Your task to perform on an android device: set the stopwatch Image 0: 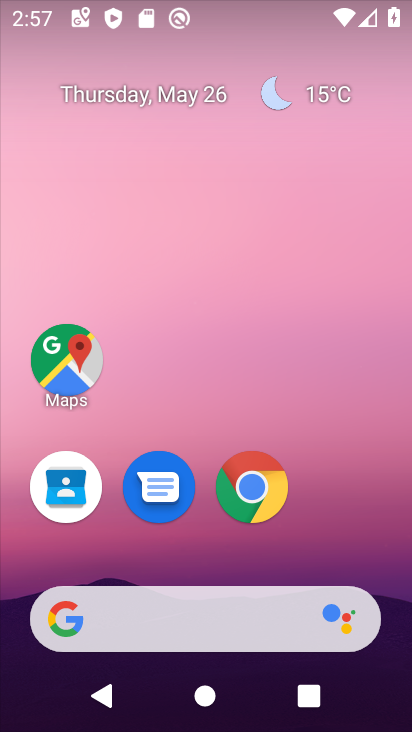
Step 0: drag from (242, 558) to (238, 265)
Your task to perform on an android device: set the stopwatch Image 1: 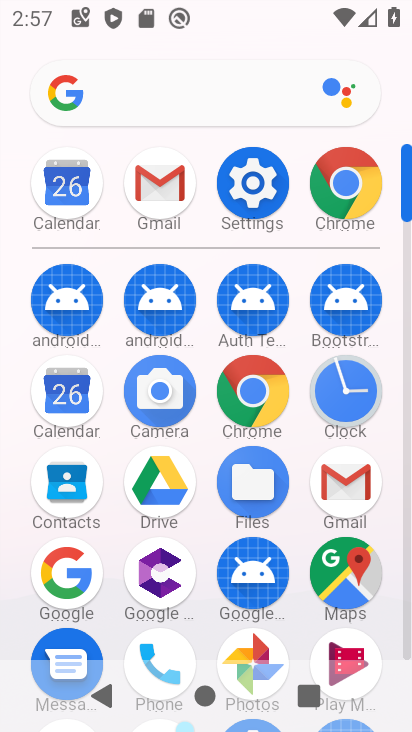
Step 1: click (326, 394)
Your task to perform on an android device: set the stopwatch Image 2: 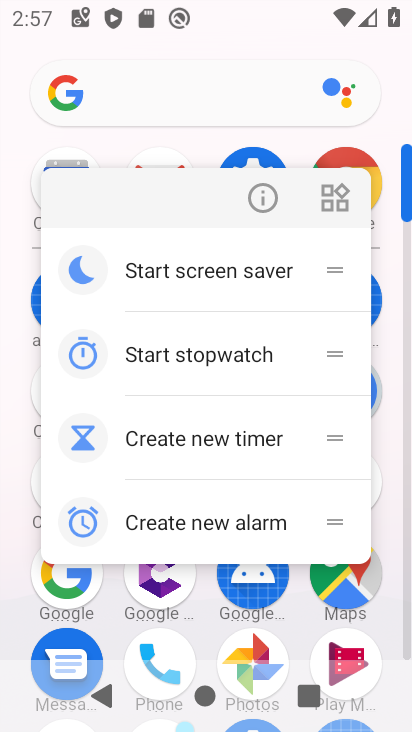
Step 2: click (389, 380)
Your task to perform on an android device: set the stopwatch Image 3: 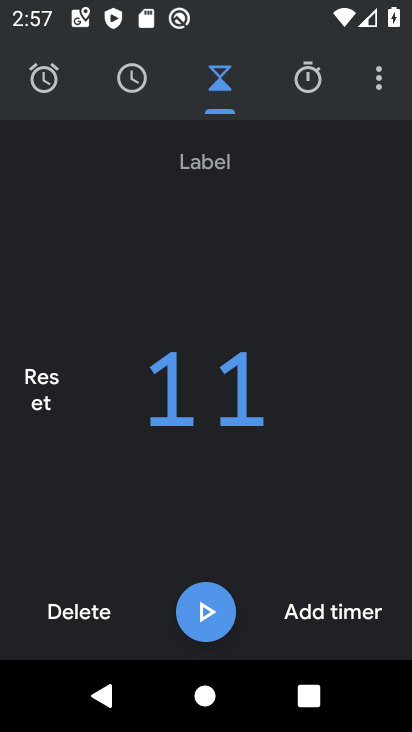
Step 3: click (299, 78)
Your task to perform on an android device: set the stopwatch Image 4: 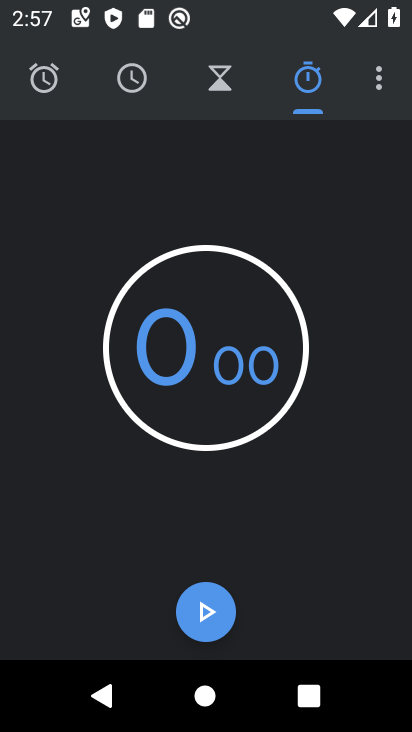
Step 4: click (214, 609)
Your task to perform on an android device: set the stopwatch Image 5: 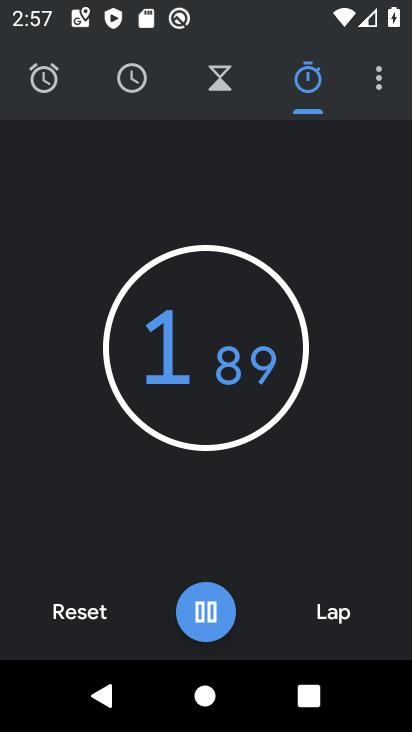
Step 5: task complete